Your task to perform on an android device: change notification settings in the gmail app Image 0: 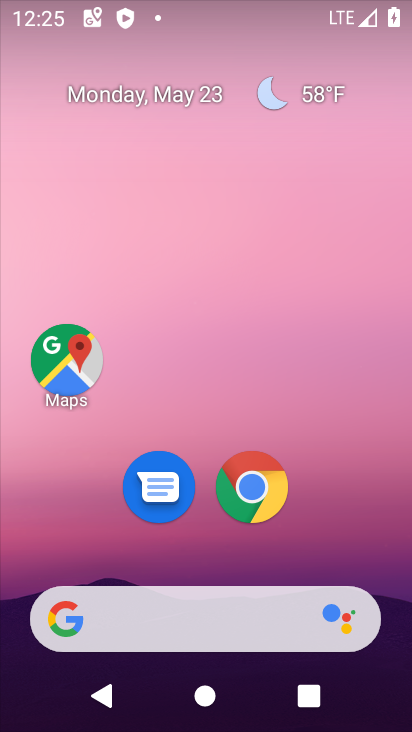
Step 0: drag from (395, 624) to (361, 99)
Your task to perform on an android device: change notification settings in the gmail app Image 1: 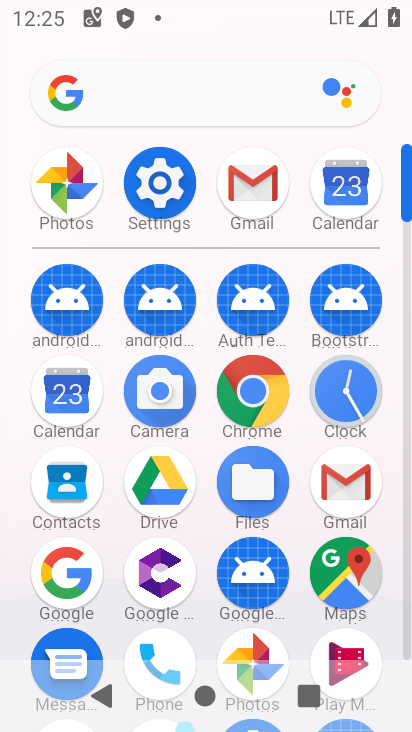
Step 1: click (409, 628)
Your task to perform on an android device: change notification settings in the gmail app Image 2: 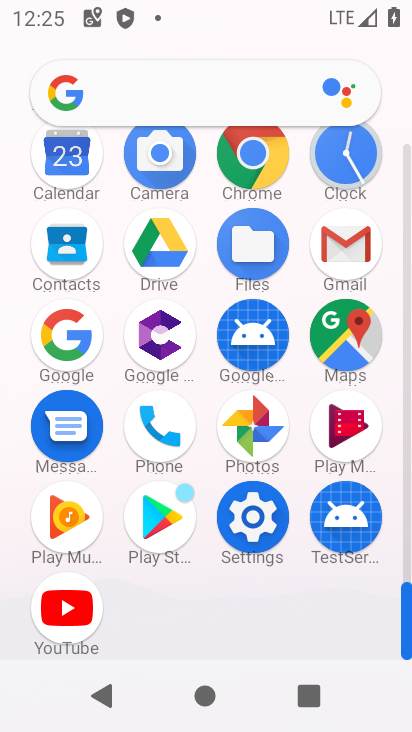
Step 2: click (342, 236)
Your task to perform on an android device: change notification settings in the gmail app Image 3: 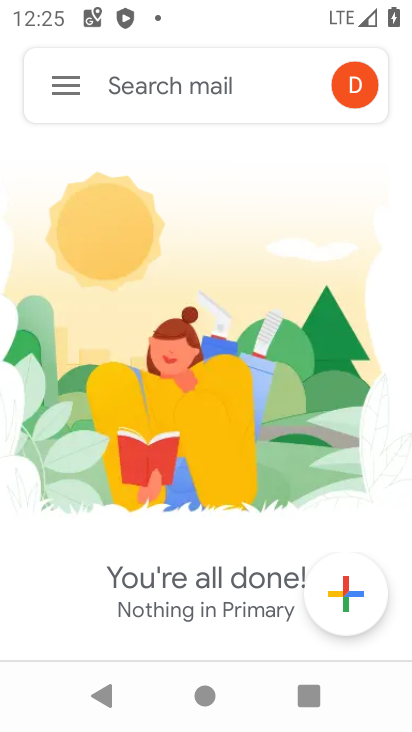
Step 3: click (62, 84)
Your task to perform on an android device: change notification settings in the gmail app Image 4: 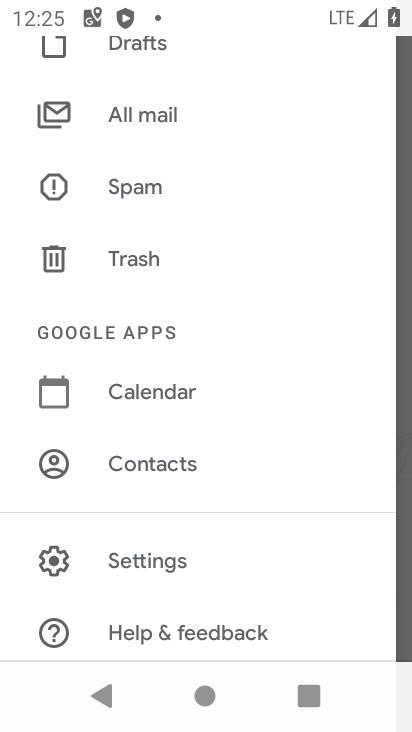
Step 4: click (140, 551)
Your task to perform on an android device: change notification settings in the gmail app Image 5: 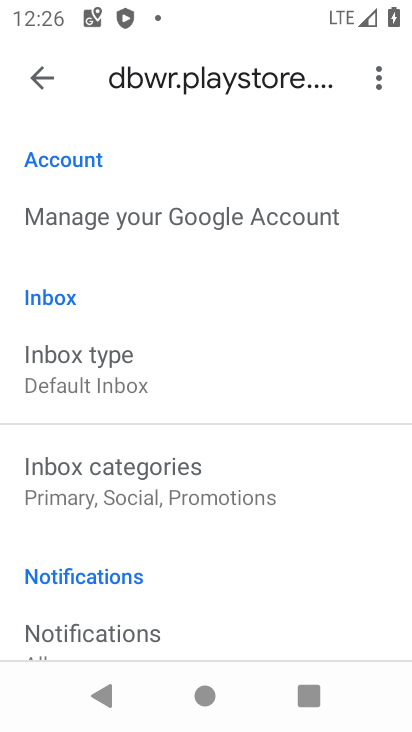
Step 5: drag from (273, 642) to (234, 155)
Your task to perform on an android device: change notification settings in the gmail app Image 6: 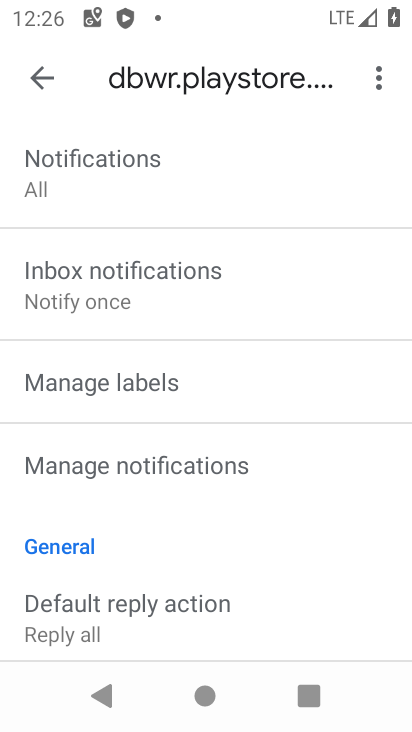
Step 6: click (124, 460)
Your task to perform on an android device: change notification settings in the gmail app Image 7: 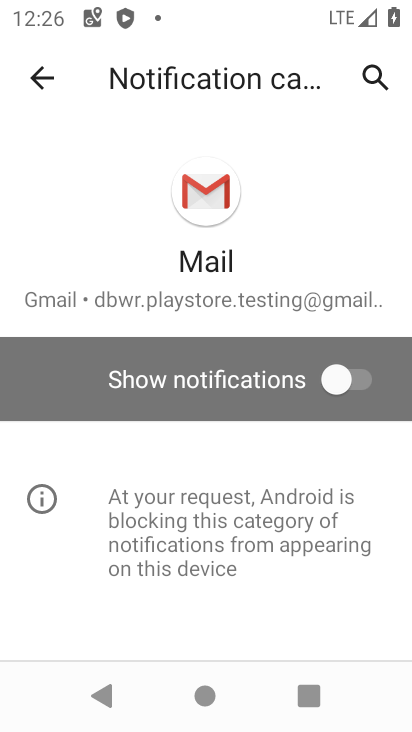
Step 7: click (356, 393)
Your task to perform on an android device: change notification settings in the gmail app Image 8: 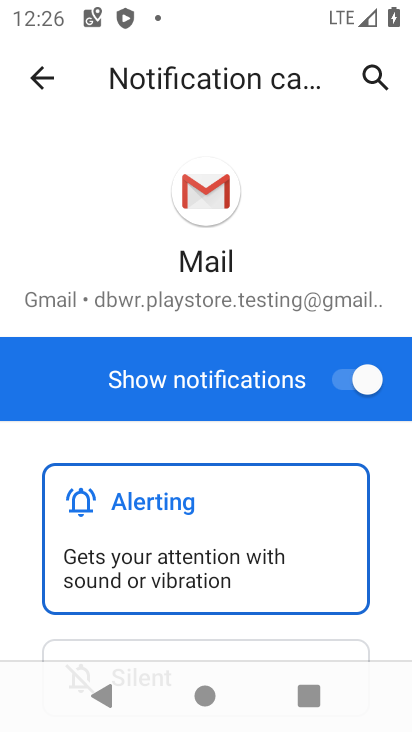
Step 8: task complete